Your task to perform on an android device: all mails in gmail Image 0: 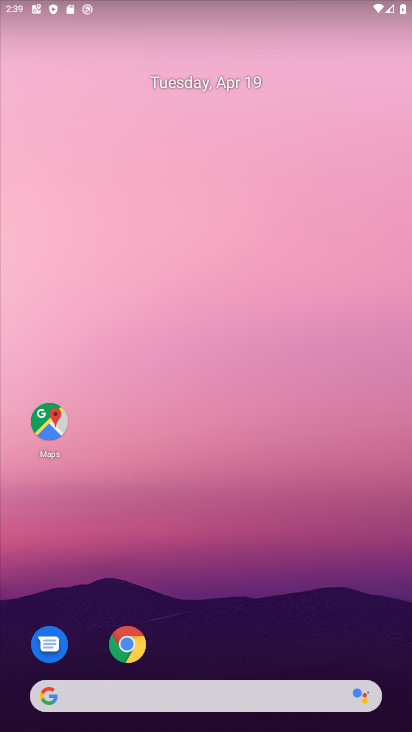
Step 0: drag from (274, 634) to (139, 165)
Your task to perform on an android device: all mails in gmail Image 1: 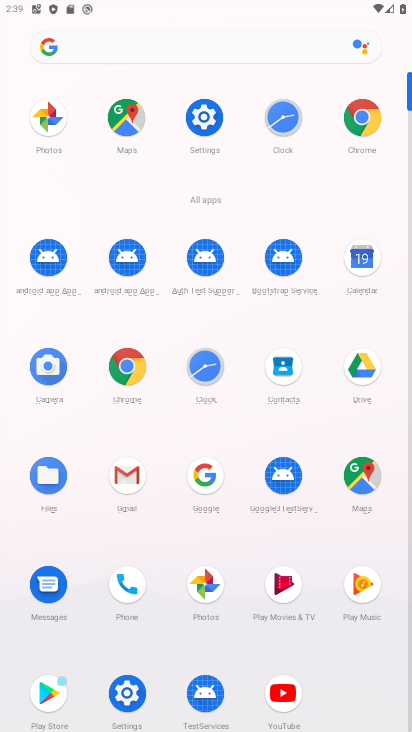
Step 1: click (124, 477)
Your task to perform on an android device: all mails in gmail Image 2: 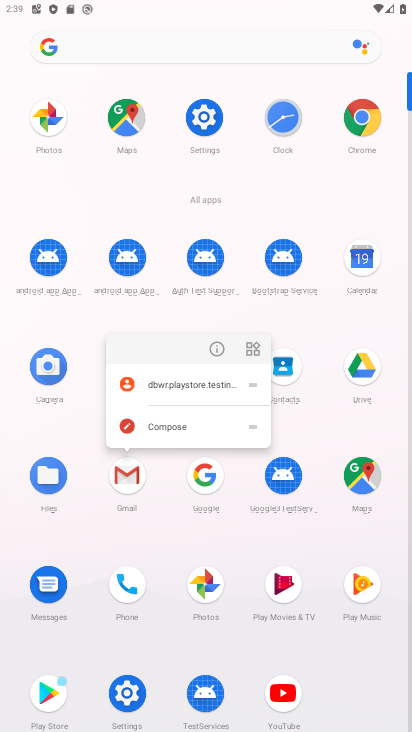
Step 2: click (130, 478)
Your task to perform on an android device: all mails in gmail Image 3: 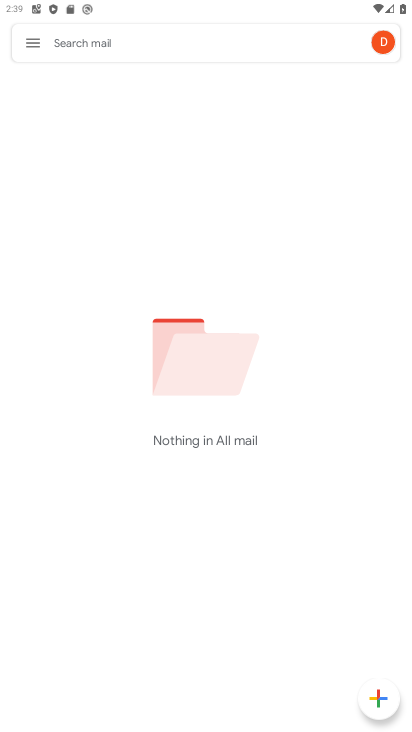
Step 3: task complete